Your task to perform on an android device: Go to display settings Image 0: 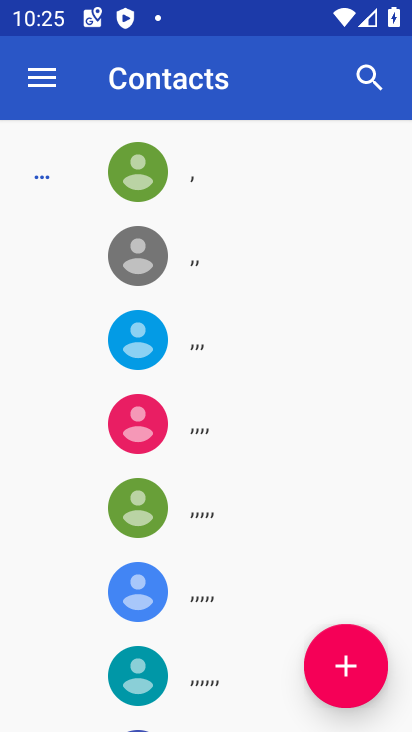
Step 0: press back button
Your task to perform on an android device: Go to display settings Image 1: 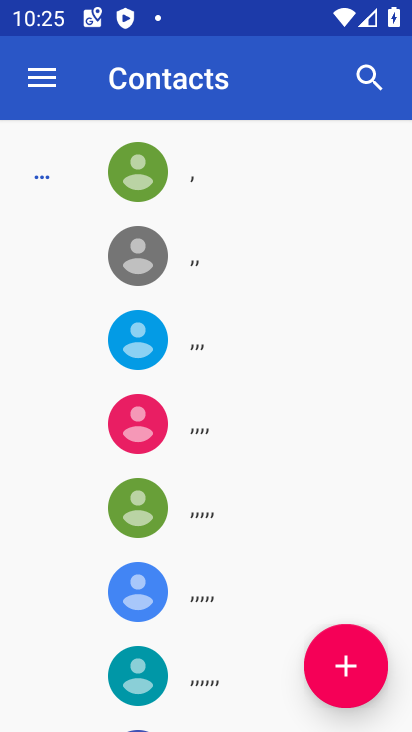
Step 1: press back button
Your task to perform on an android device: Go to display settings Image 2: 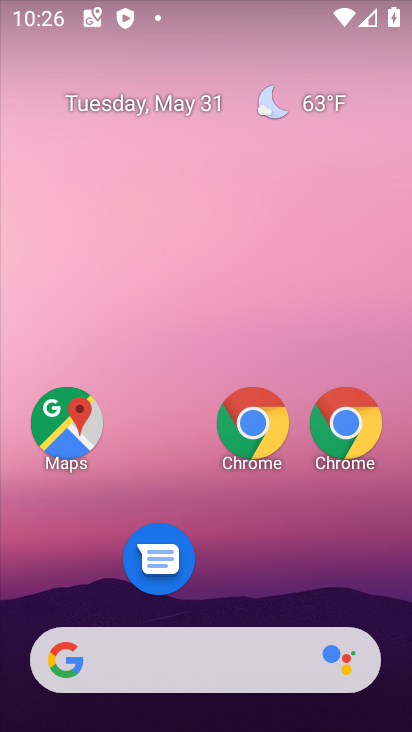
Step 2: drag from (254, 676) to (177, 129)
Your task to perform on an android device: Go to display settings Image 3: 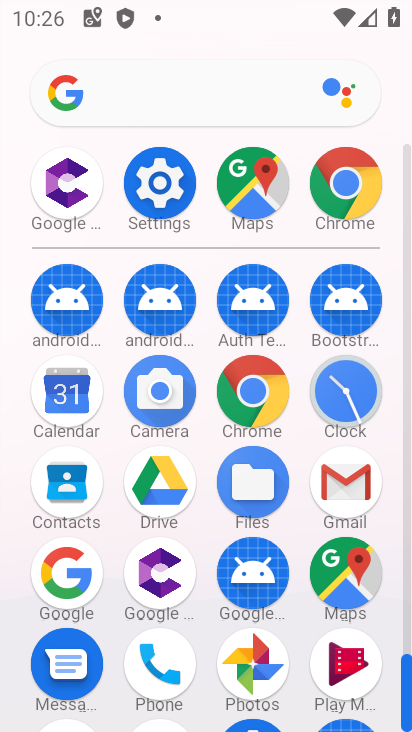
Step 3: click (164, 182)
Your task to perform on an android device: Go to display settings Image 4: 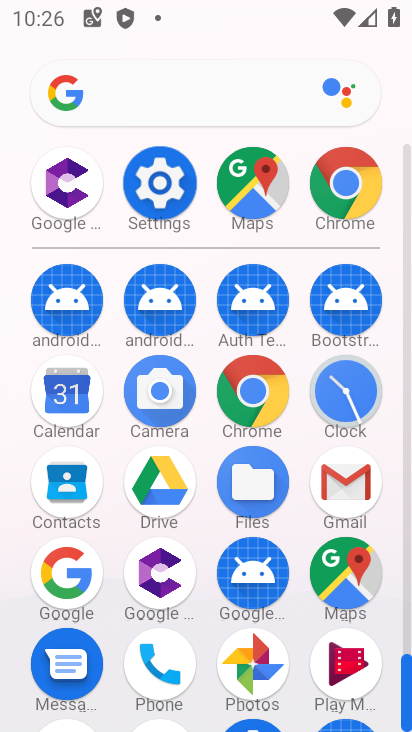
Step 4: click (171, 193)
Your task to perform on an android device: Go to display settings Image 5: 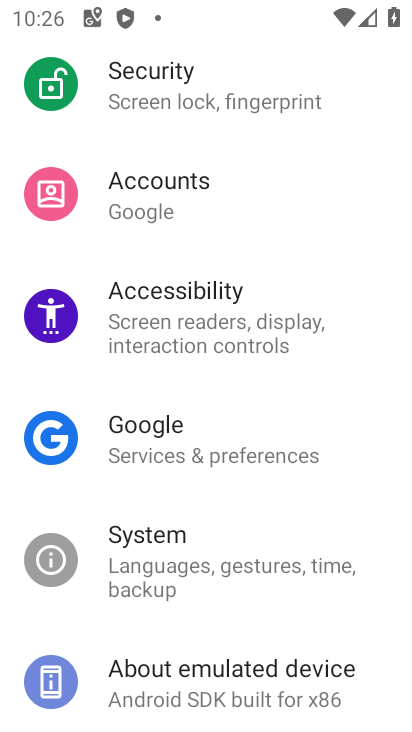
Step 5: click (167, 193)
Your task to perform on an android device: Go to display settings Image 6: 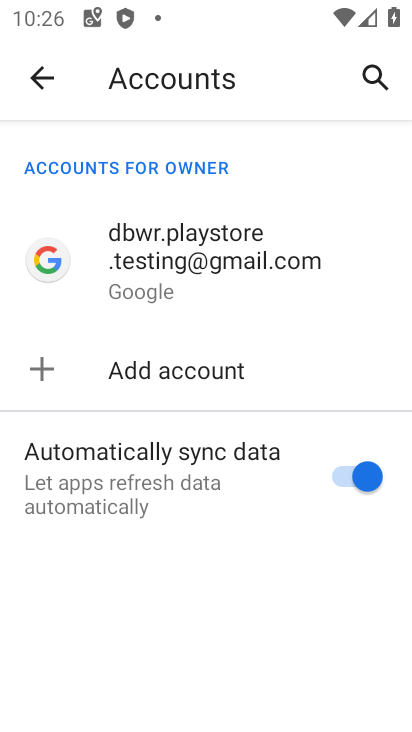
Step 6: click (32, 85)
Your task to perform on an android device: Go to display settings Image 7: 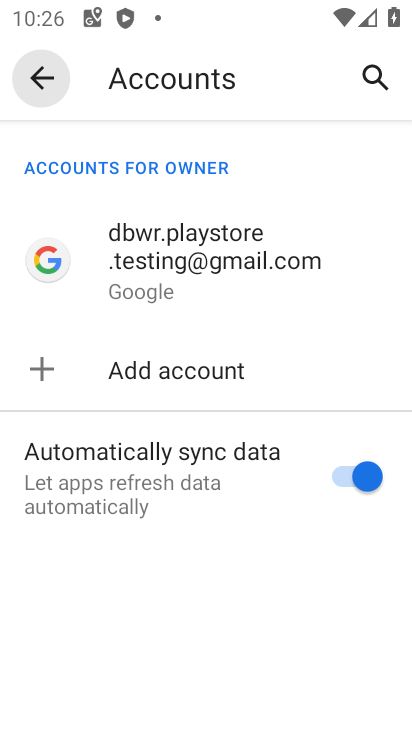
Step 7: click (32, 85)
Your task to perform on an android device: Go to display settings Image 8: 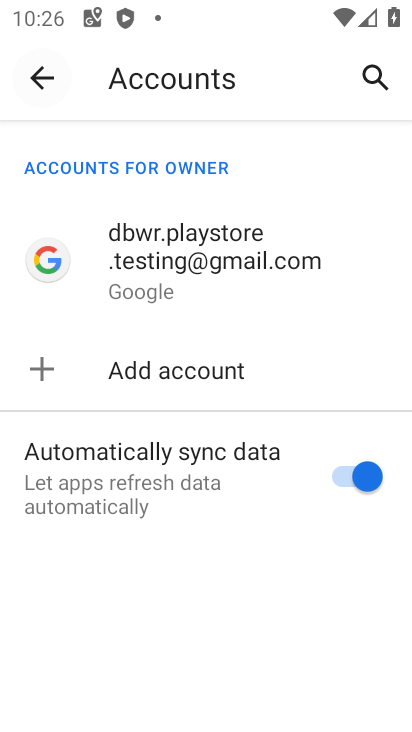
Step 8: click (32, 85)
Your task to perform on an android device: Go to display settings Image 9: 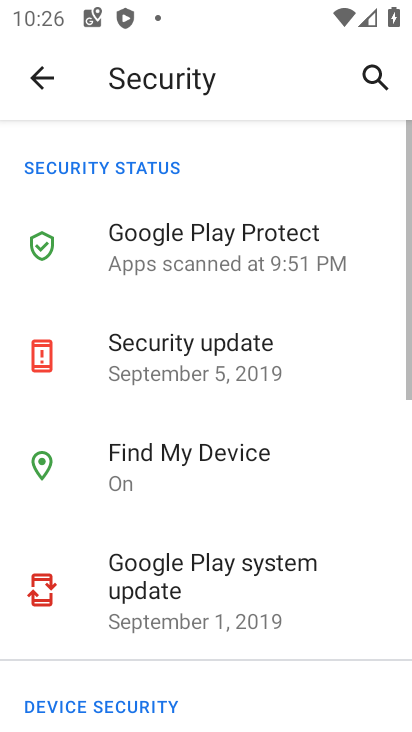
Step 9: click (42, 85)
Your task to perform on an android device: Go to display settings Image 10: 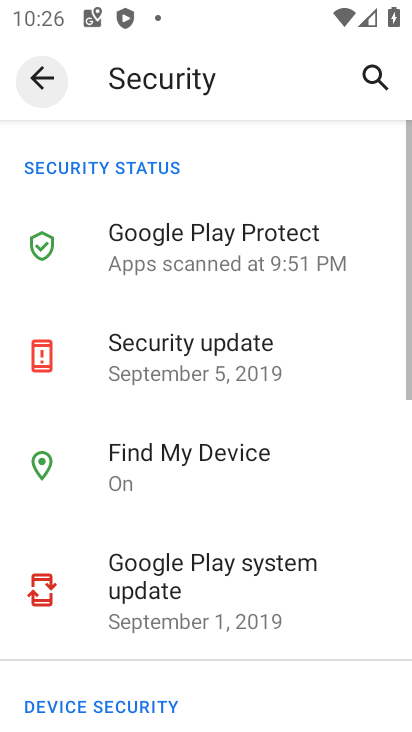
Step 10: click (42, 85)
Your task to perform on an android device: Go to display settings Image 11: 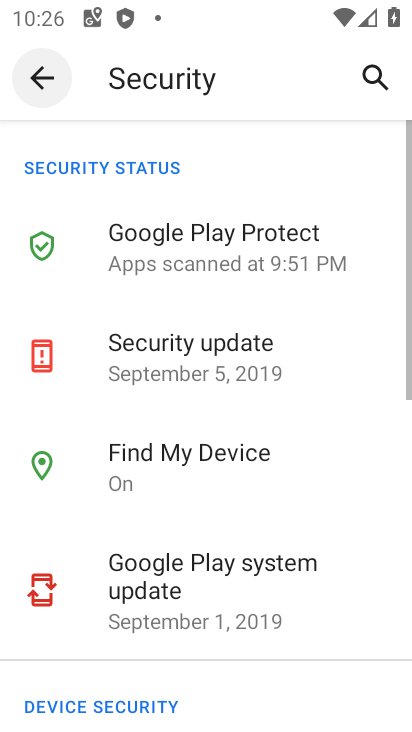
Step 11: click (42, 85)
Your task to perform on an android device: Go to display settings Image 12: 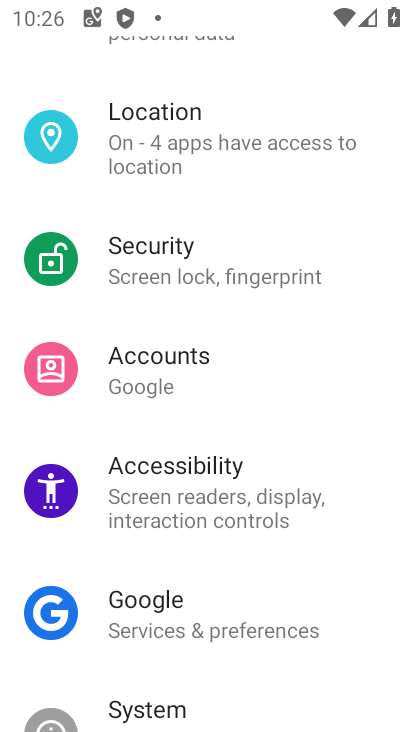
Step 12: drag from (179, 547) to (174, 206)
Your task to perform on an android device: Go to display settings Image 13: 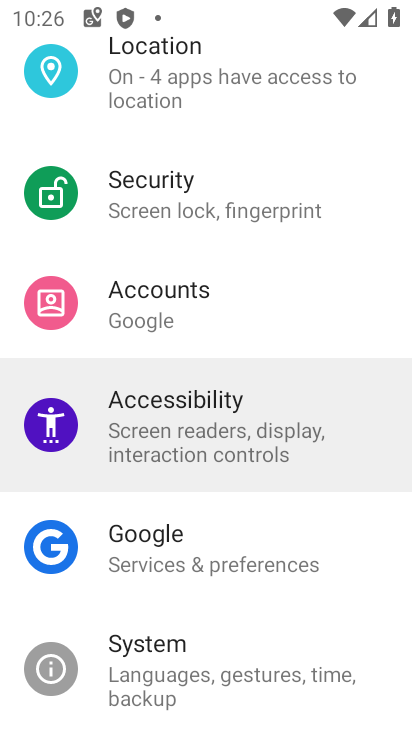
Step 13: drag from (184, 511) to (178, 224)
Your task to perform on an android device: Go to display settings Image 14: 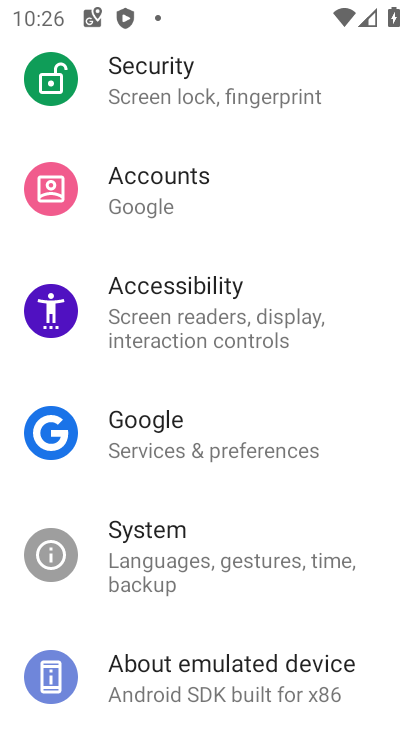
Step 14: drag from (203, 400) to (192, 183)
Your task to perform on an android device: Go to display settings Image 15: 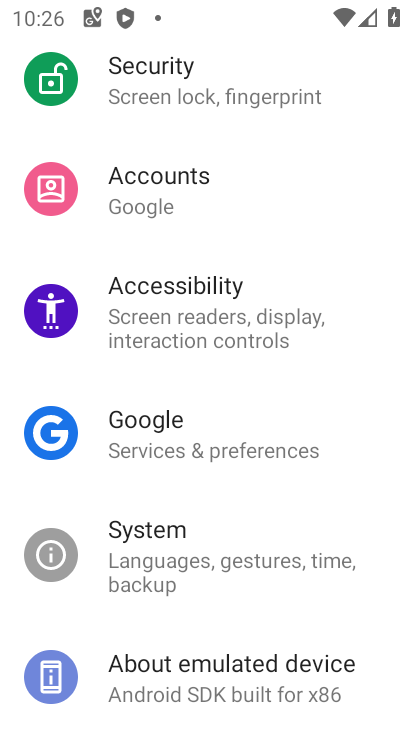
Step 15: drag from (212, 260) to (205, 584)
Your task to perform on an android device: Go to display settings Image 16: 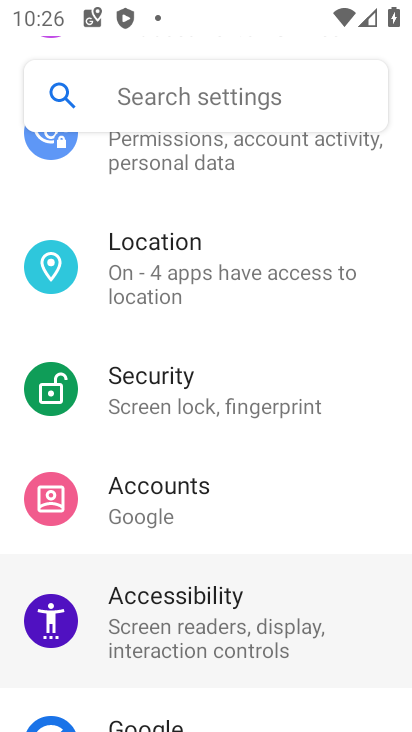
Step 16: drag from (194, 259) to (235, 514)
Your task to perform on an android device: Go to display settings Image 17: 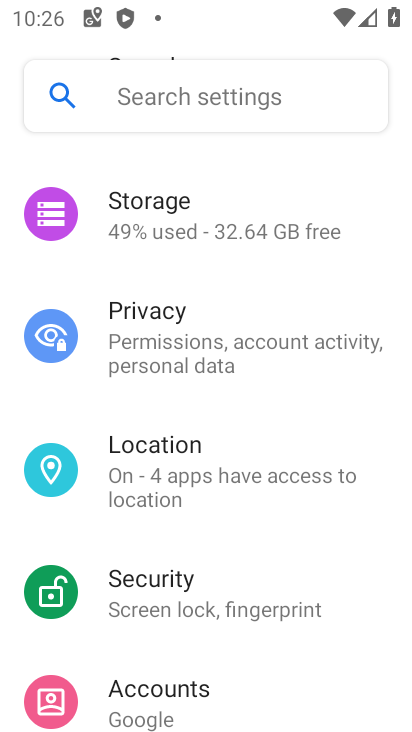
Step 17: drag from (126, 237) to (184, 578)
Your task to perform on an android device: Go to display settings Image 18: 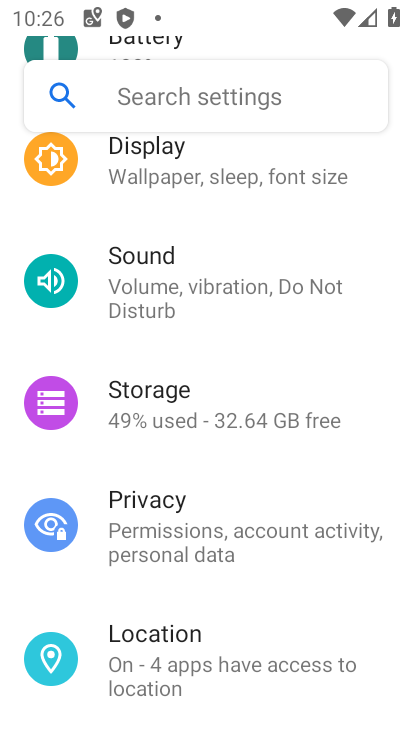
Step 18: click (153, 153)
Your task to perform on an android device: Go to display settings Image 19: 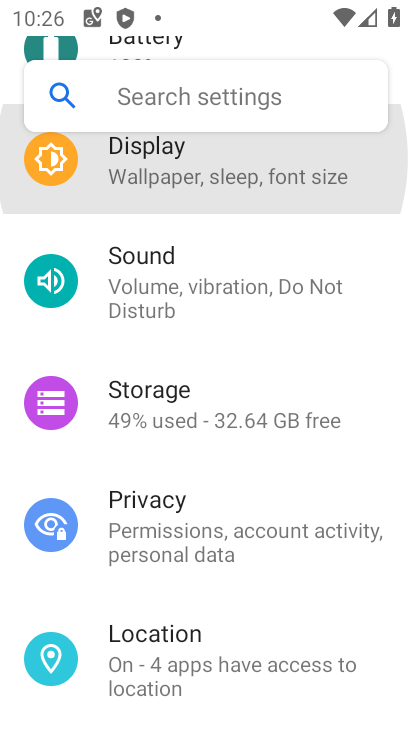
Step 19: click (155, 155)
Your task to perform on an android device: Go to display settings Image 20: 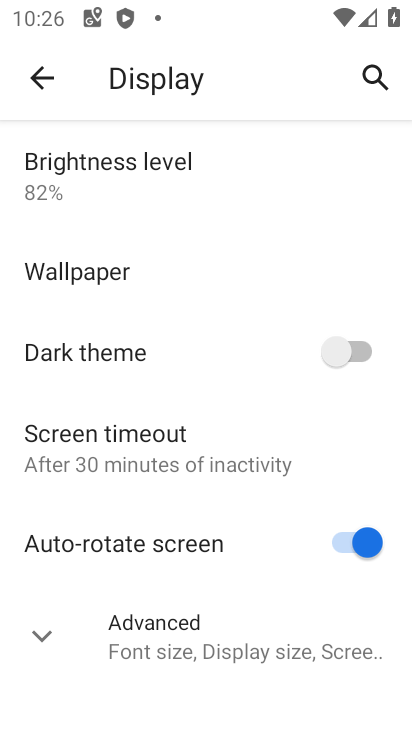
Step 20: task complete